Your task to perform on an android device: Open battery settings Image 0: 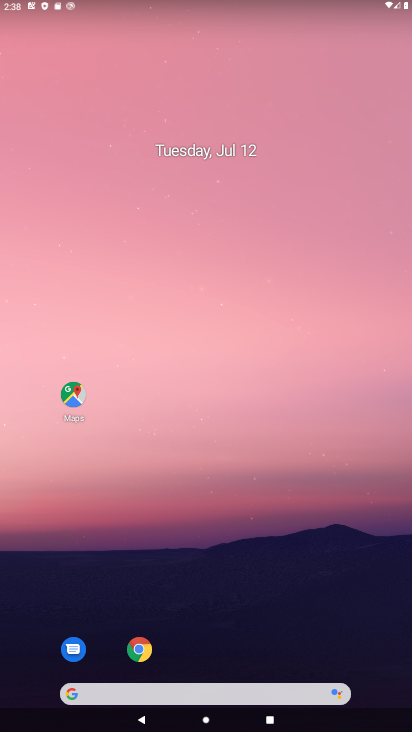
Step 0: drag from (298, 610) to (252, 165)
Your task to perform on an android device: Open battery settings Image 1: 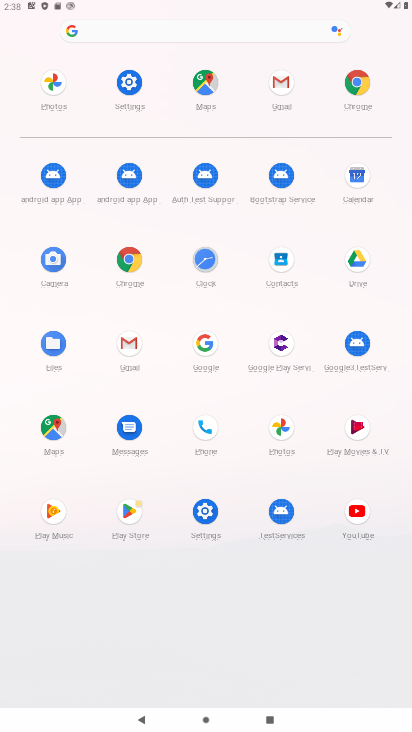
Step 1: click (146, 98)
Your task to perform on an android device: Open battery settings Image 2: 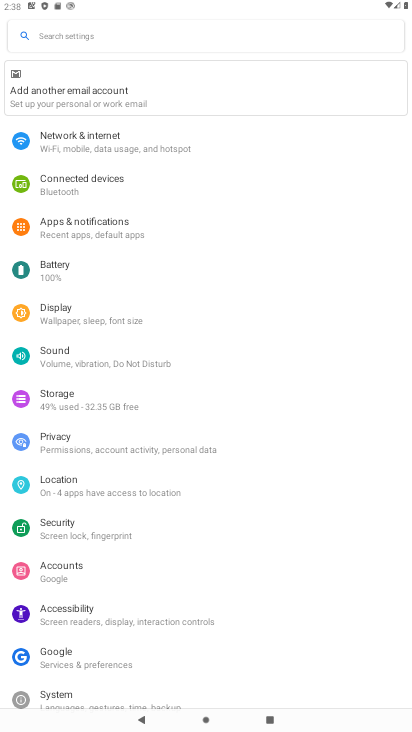
Step 2: click (120, 280)
Your task to perform on an android device: Open battery settings Image 3: 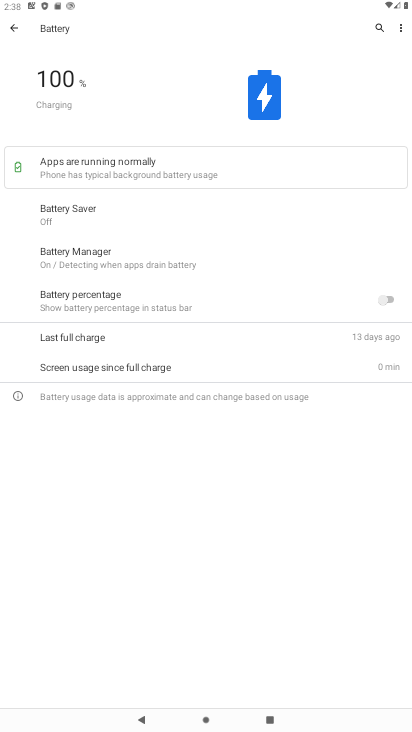
Step 3: task complete